Your task to perform on an android device: Open Wikipedia Image 0: 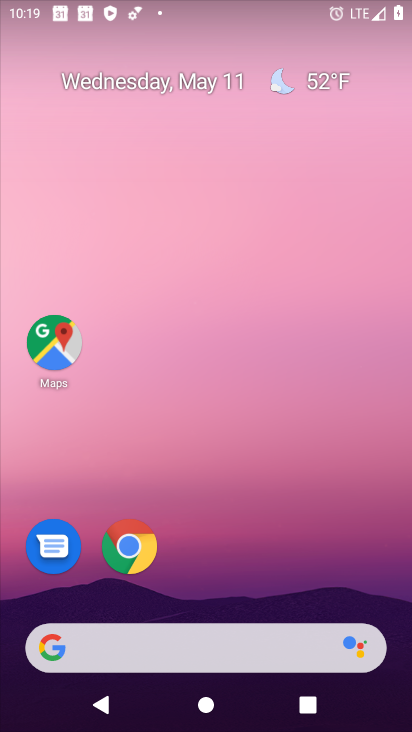
Step 0: click (107, 596)
Your task to perform on an android device: Open Wikipedia Image 1: 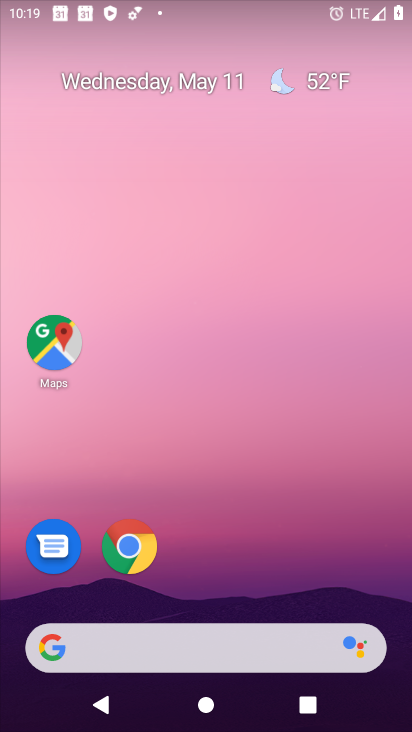
Step 1: click (123, 558)
Your task to perform on an android device: Open Wikipedia Image 2: 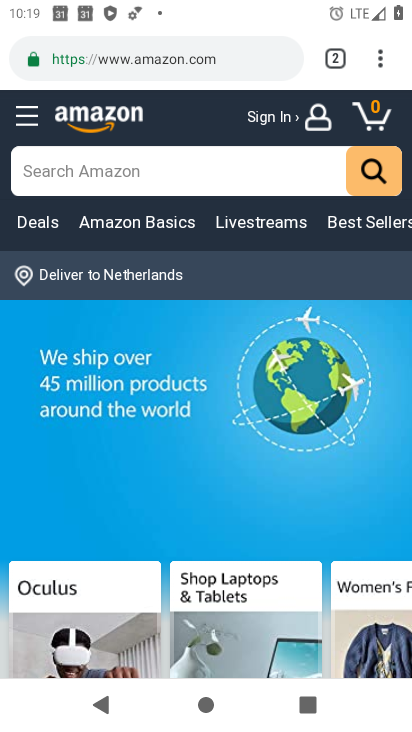
Step 2: click (154, 70)
Your task to perform on an android device: Open Wikipedia Image 3: 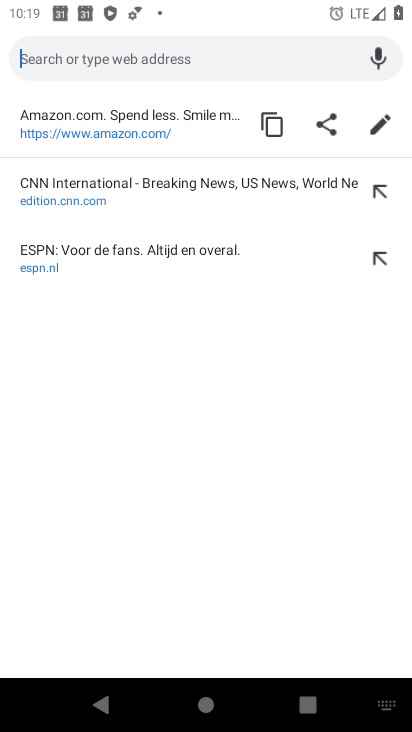
Step 3: type "wikipedia"
Your task to perform on an android device: Open Wikipedia Image 4: 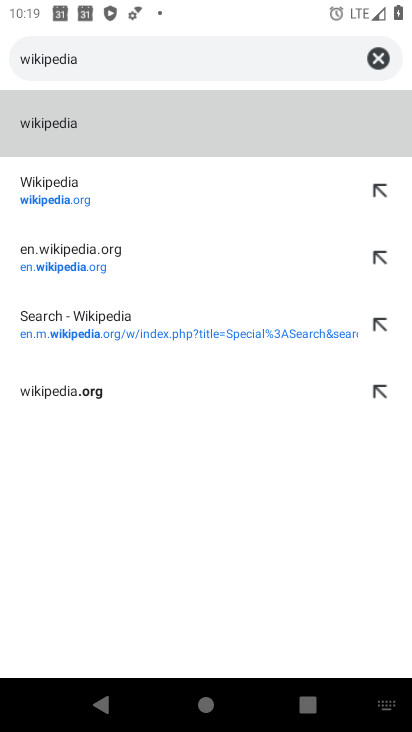
Step 4: click (78, 193)
Your task to perform on an android device: Open Wikipedia Image 5: 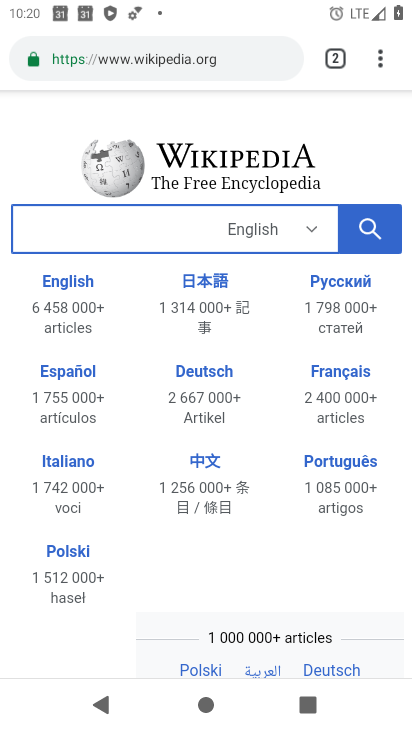
Step 5: task complete